Your task to perform on an android device: open app "Expedia: Hotels, Flights & Car" (install if not already installed) Image 0: 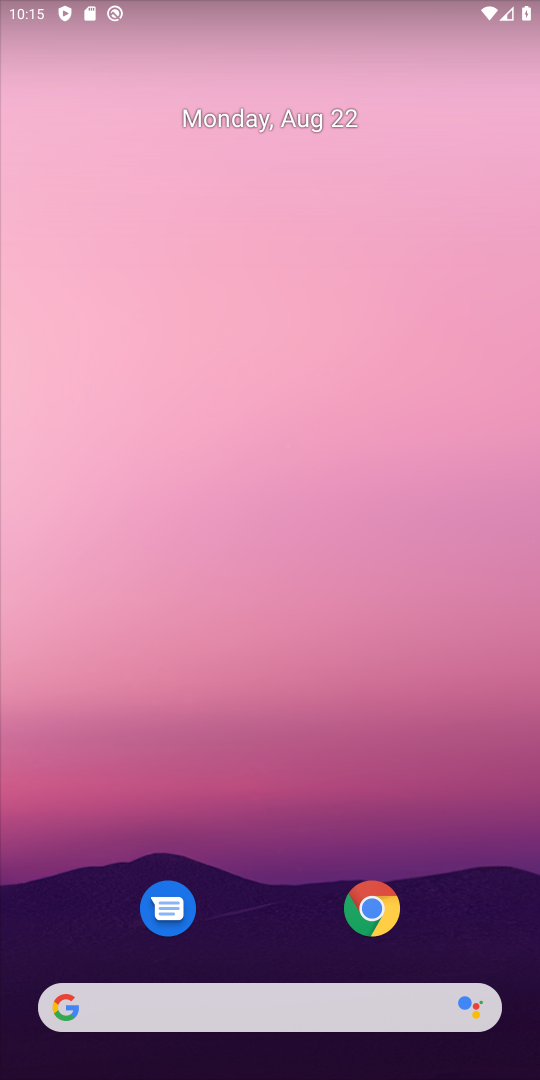
Step 0: drag from (295, 959) to (320, 213)
Your task to perform on an android device: open app "Expedia: Hotels, Flights & Car" (install if not already installed) Image 1: 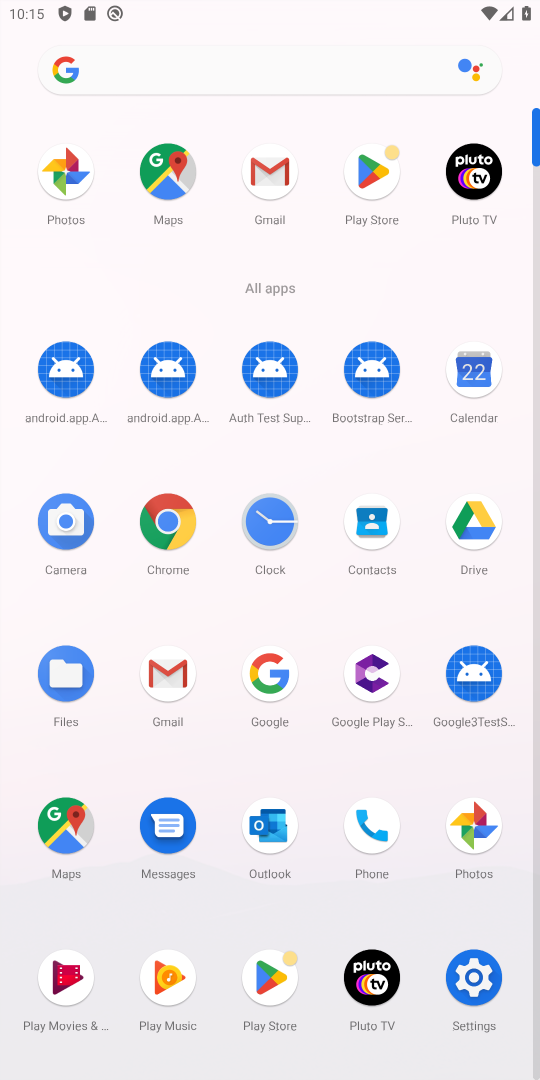
Step 1: click (381, 169)
Your task to perform on an android device: open app "Expedia: Hotels, Flights & Car" (install if not already installed) Image 2: 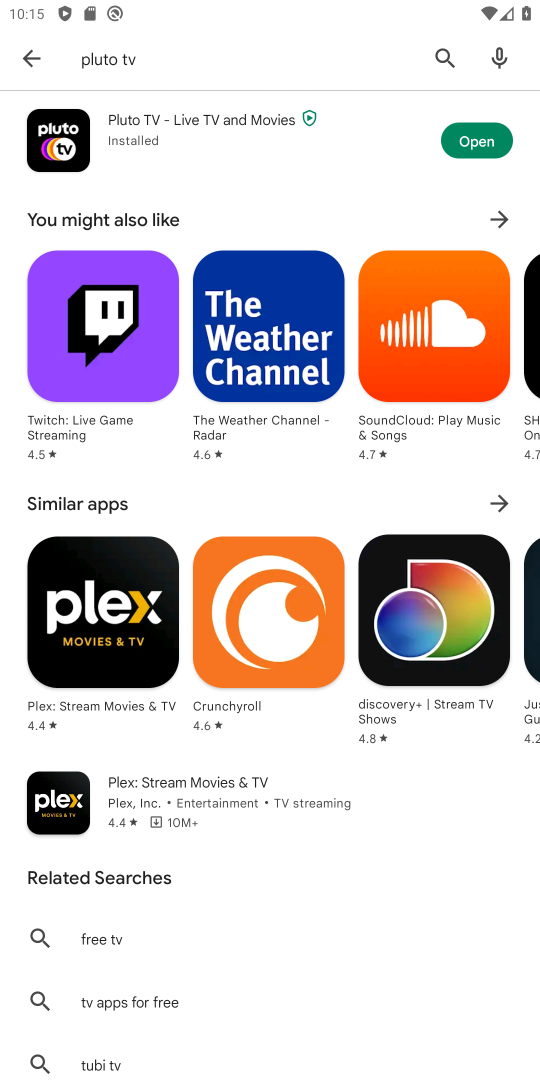
Step 2: click (450, 66)
Your task to perform on an android device: open app "Expedia: Hotels, Flights & Car" (install if not already installed) Image 3: 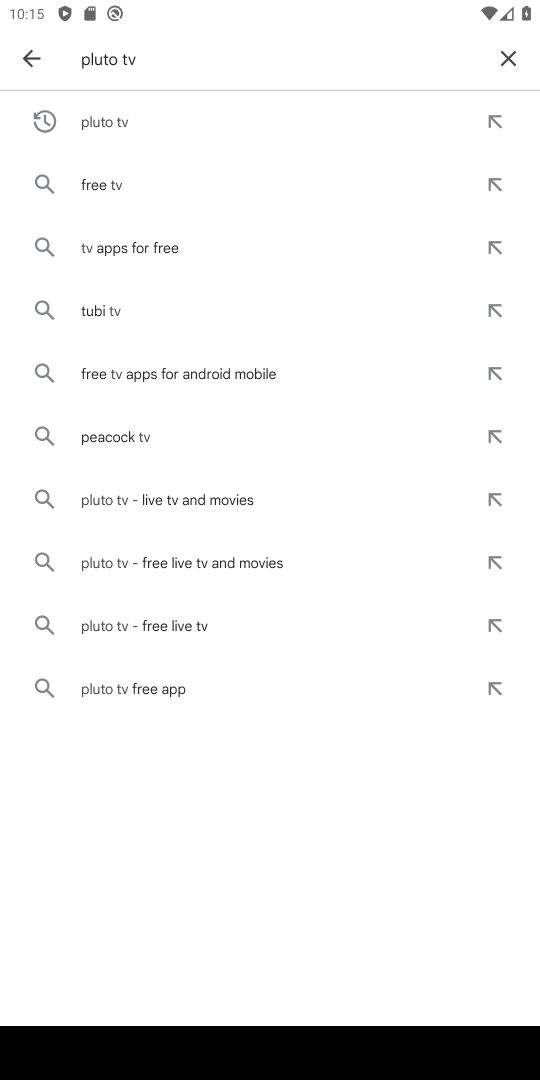
Step 3: click (509, 63)
Your task to perform on an android device: open app "Expedia: Hotels, Flights & Car" (install if not already installed) Image 4: 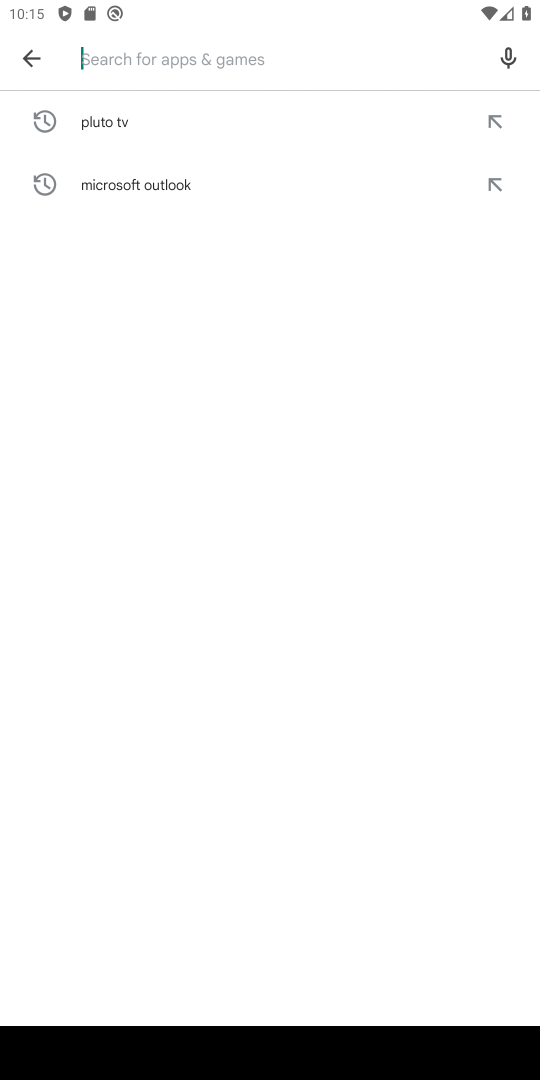
Step 4: type "expedia"
Your task to perform on an android device: open app "Expedia: Hotels, Flights & Car" (install if not already installed) Image 5: 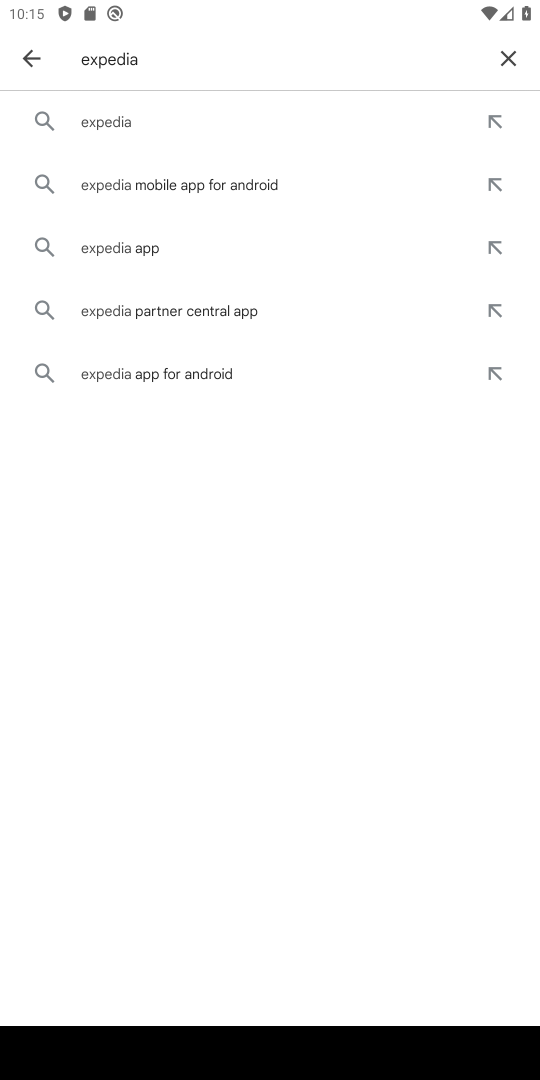
Step 5: click (209, 107)
Your task to perform on an android device: open app "Expedia: Hotels, Flights & Car" (install if not already installed) Image 6: 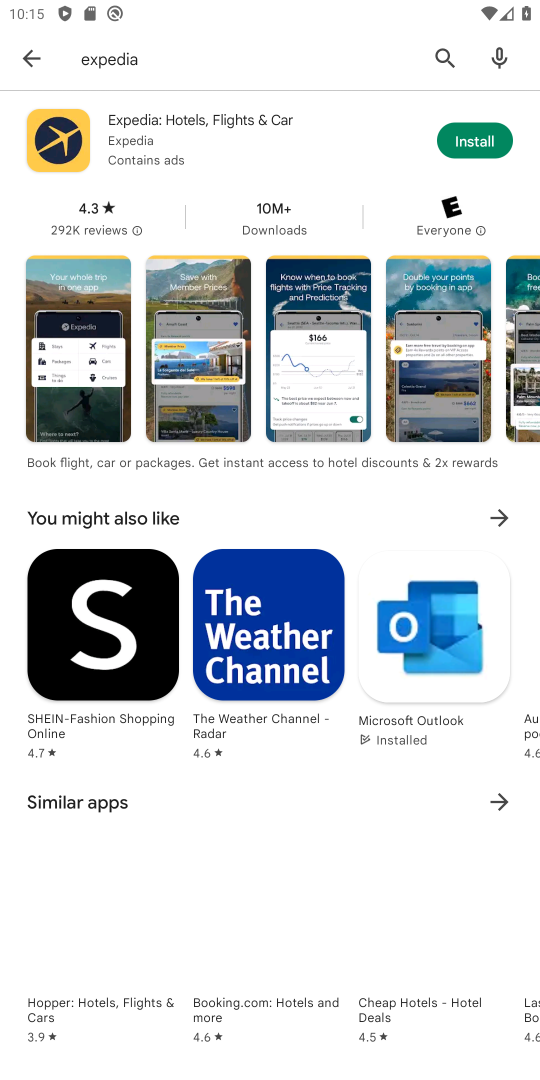
Step 6: click (461, 132)
Your task to perform on an android device: open app "Expedia: Hotels, Flights & Car" (install if not already installed) Image 7: 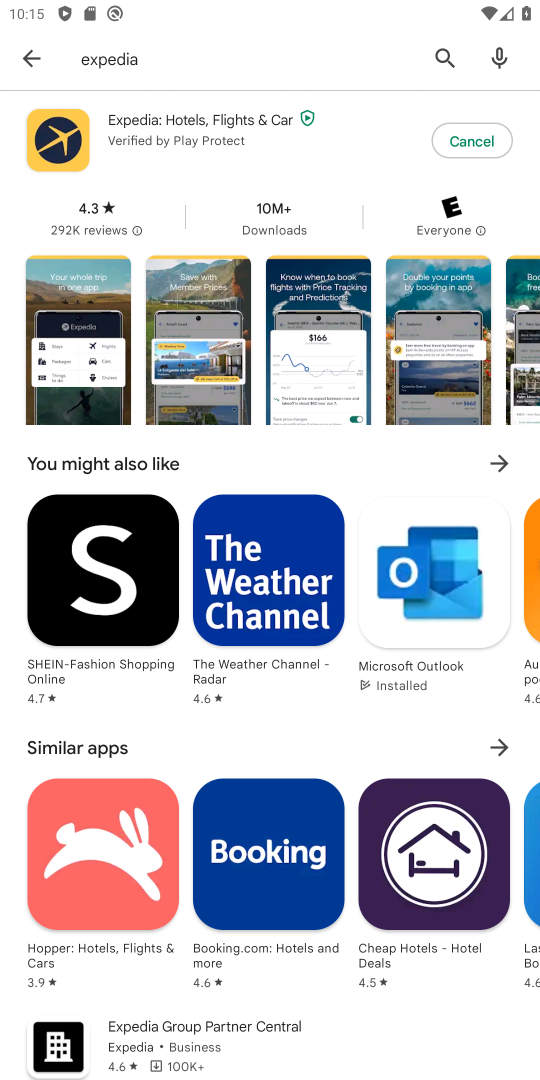
Step 7: task complete